Your task to perform on an android device: uninstall "Contacts" Image 0: 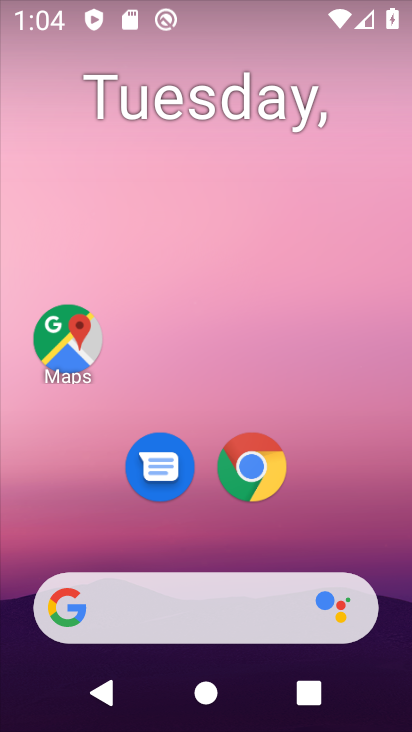
Step 0: drag from (188, 595) to (294, 21)
Your task to perform on an android device: uninstall "Contacts" Image 1: 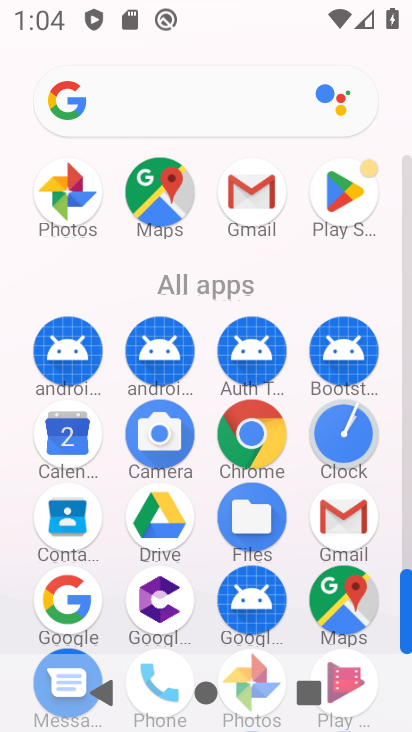
Step 1: drag from (345, 192) to (228, 317)
Your task to perform on an android device: uninstall "Contacts" Image 2: 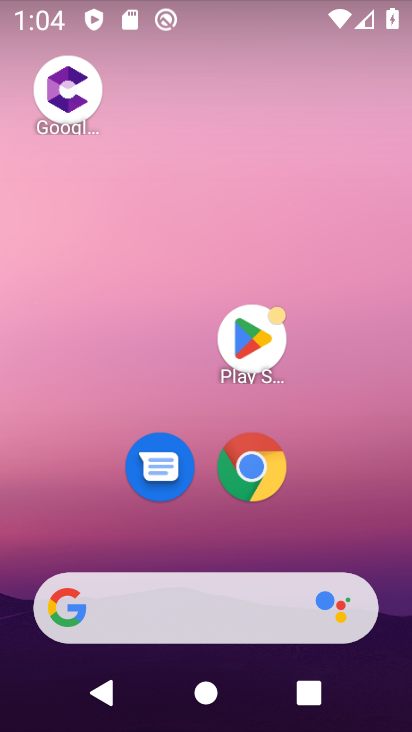
Step 2: click (253, 337)
Your task to perform on an android device: uninstall "Contacts" Image 3: 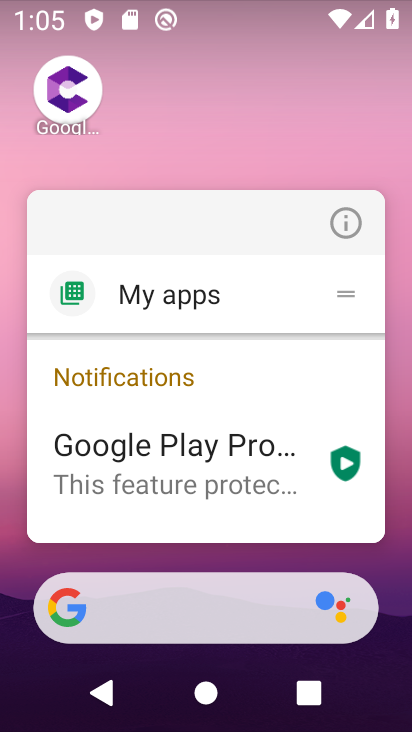
Step 3: click (281, 558)
Your task to perform on an android device: uninstall "Contacts" Image 4: 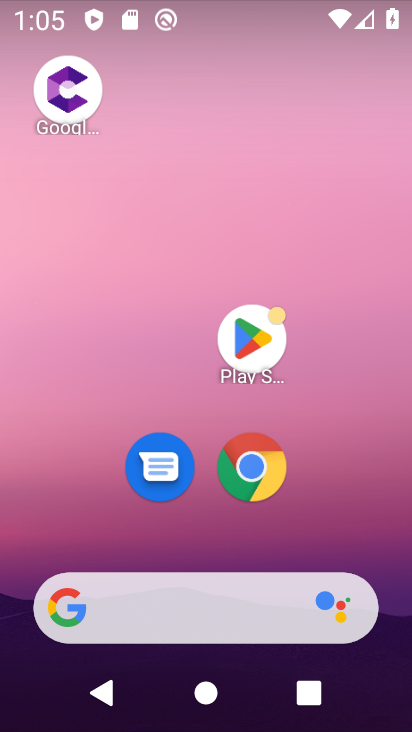
Step 4: click (253, 332)
Your task to perform on an android device: uninstall "Contacts" Image 5: 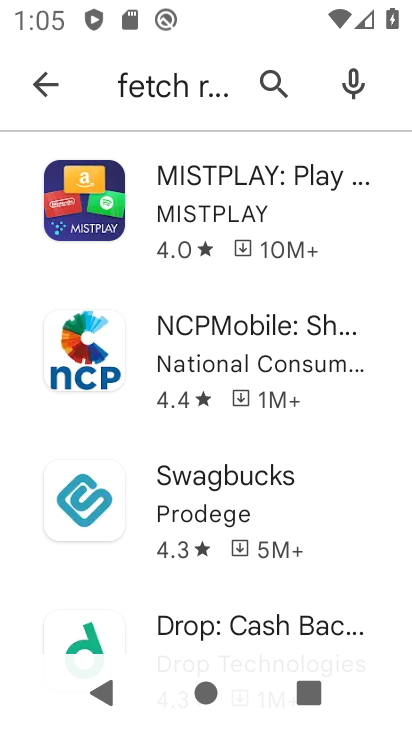
Step 5: click (267, 78)
Your task to perform on an android device: uninstall "Contacts" Image 6: 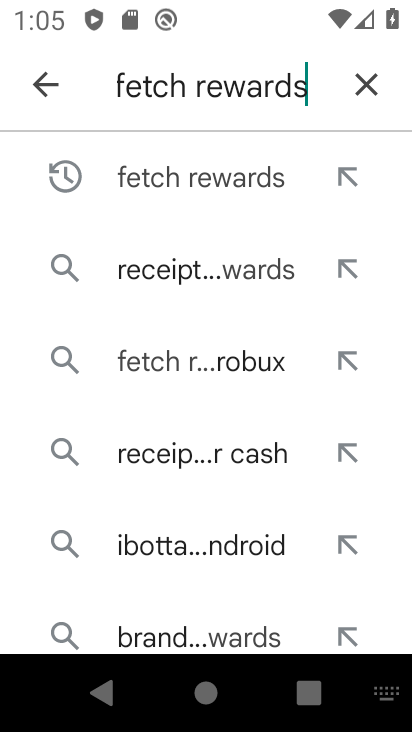
Step 6: click (361, 75)
Your task to perform on an android device: uninstall "Contacts" Image 7: 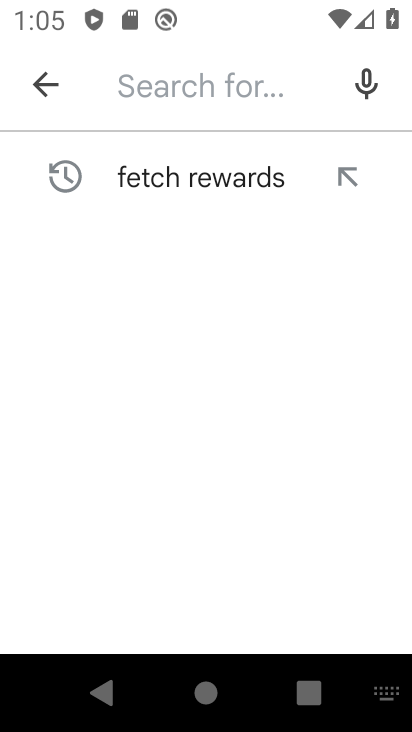
Step 7: type "Contacts"
Your task to perform on an android device: uninstall "Contacts" Image 8: 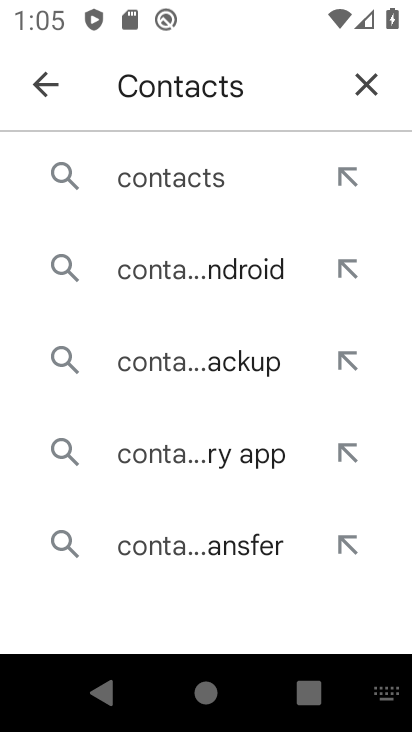
Step 8: click (162, 179)
Your task to perform on an android device: uninstall "Contacts" Image 9: 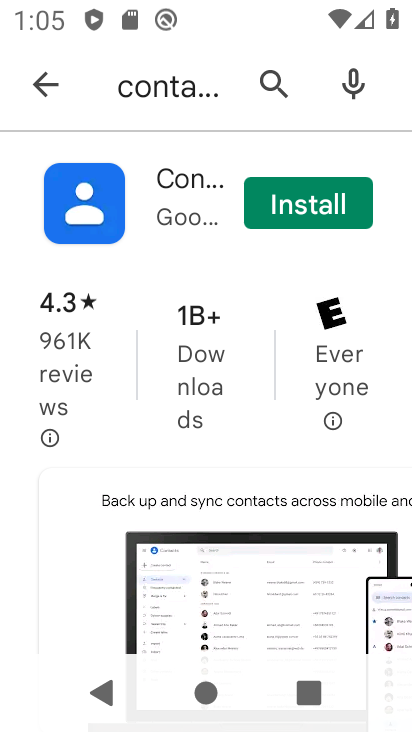
Step 9: task complete